Your task to perform on an android device: Toggle the flashlight Image 0: 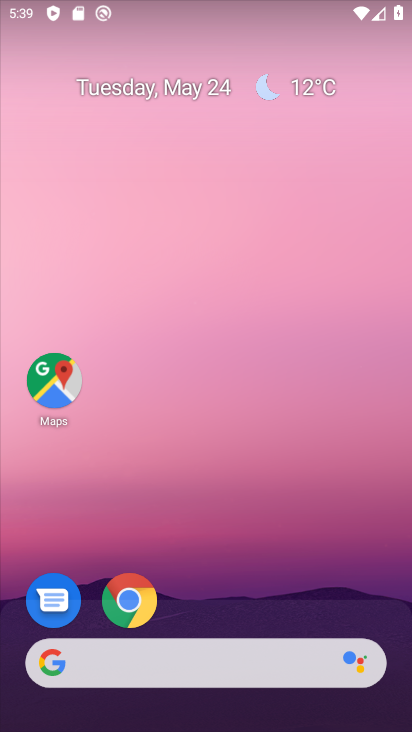
Step 0: drag from (272, 665) to (213, 92)
Your task to perform on an android device: Toggle the flashlight Image 1: 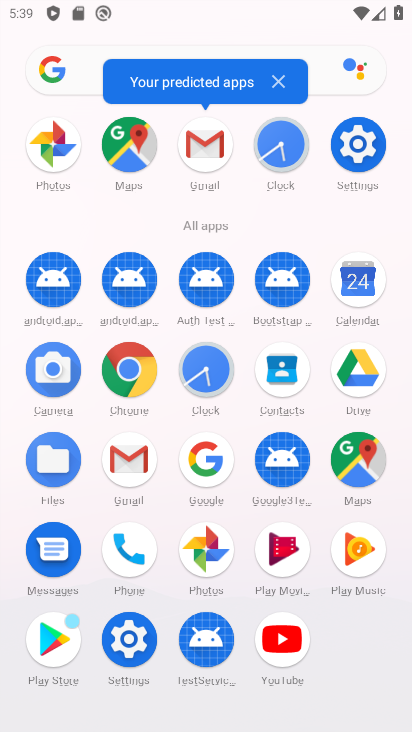
Step 1: click (370, 149)
Your task to perform on an android device: Toggle the flashlight Image 2: 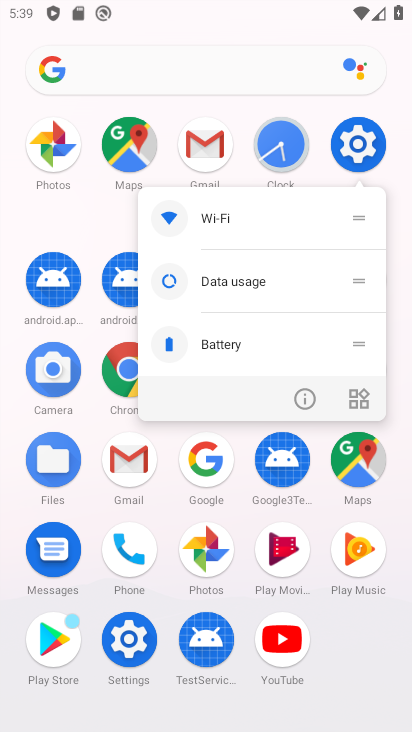
Step 2: click (368, 685)
Your task to perform on an android device: Toggle the flashlight Image 3: 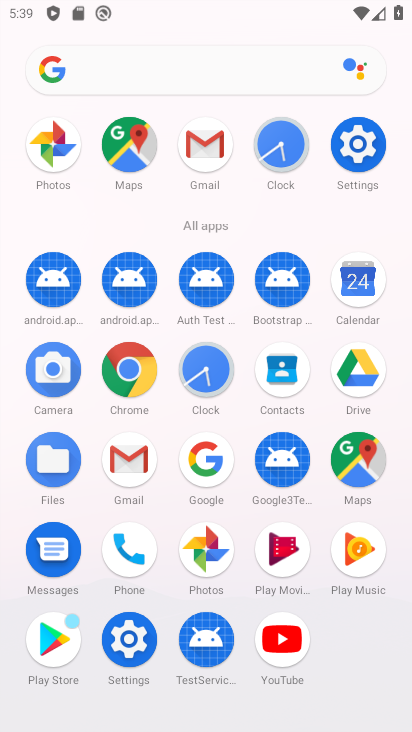
Step 3: task complete